Your task to perform on an android device: Open the calendar app, open the side menu, and click the "Day" option Image 0: 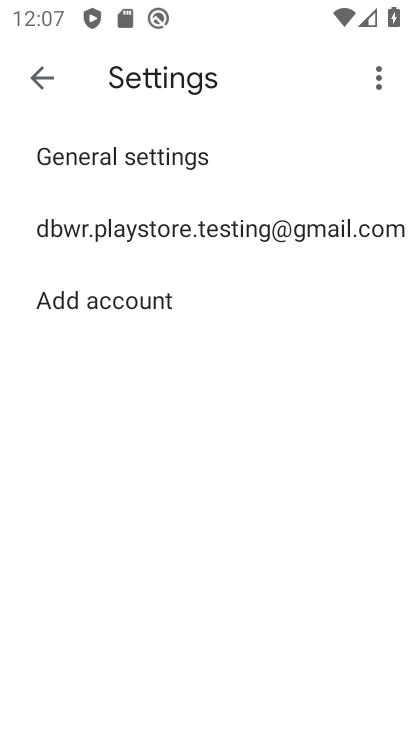
Step 0: press home button
Your task to perform on an android device: Open the calendar app, open the side menu, and click the "Day" option Image 1: 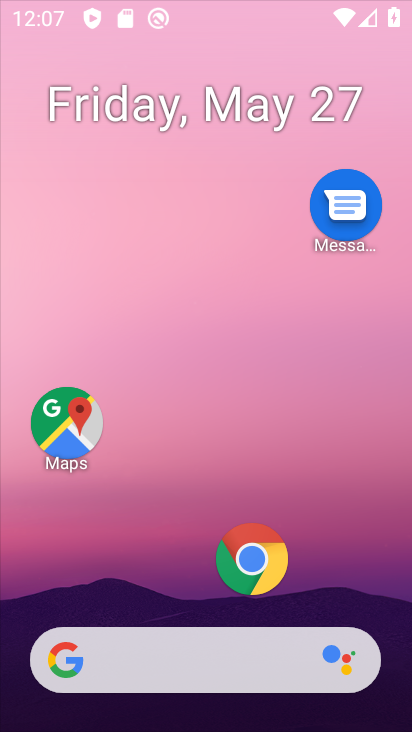
Step 1: drag from (178, 660) to (174, 119)
Your task to perform on an android device: Open the calendar app, open the side menu, and click the "Day" option Image 2: 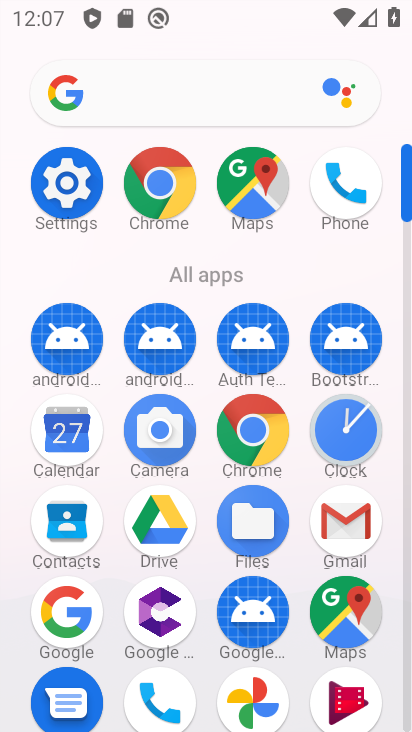
Step 2: click (73, 445)
Your task to perform on an android device: Open the calendar app, open the side menu, and click the "Day" option Image 3: 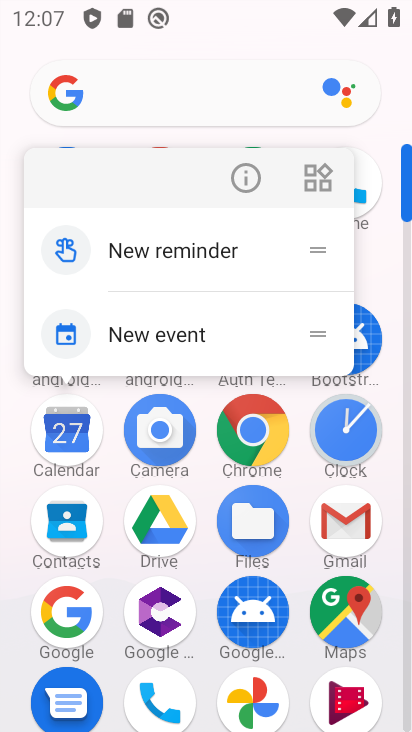
Step 3: click (59, 463)
Your task to perform on an android device: Open the calendar app, open the side menu, and click the "Day" option Image 4: 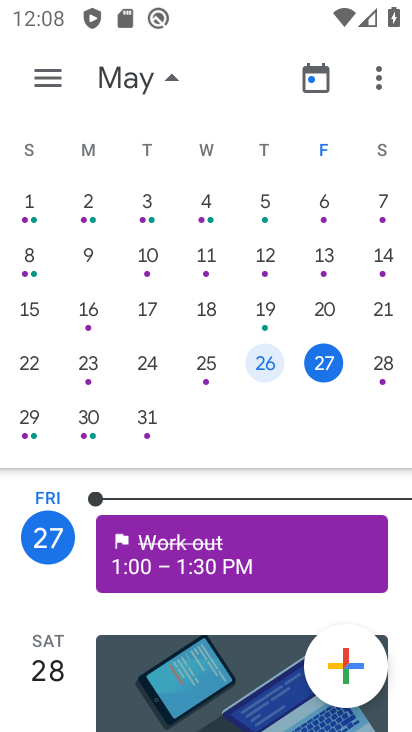
Step 4: click (43, 78)
Your task to perform on an android device: Open the calendar app, open the side menu, and click the "Day" option Image 5: 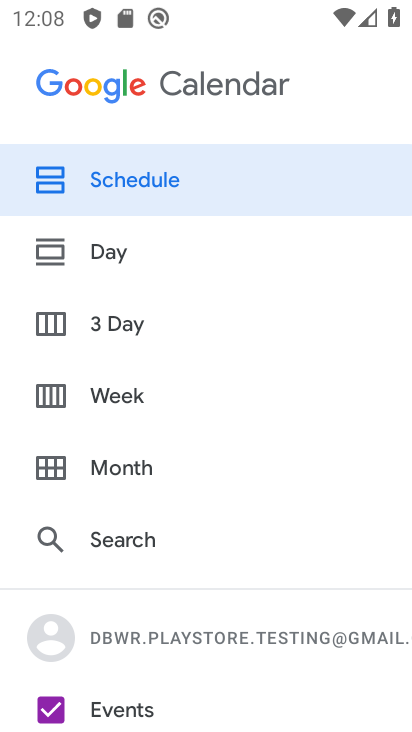
Step 5: click (145, 247)
Your task to perform on an android device: Open the calendar app, open the side menu, and click the "Day" option Image 6: 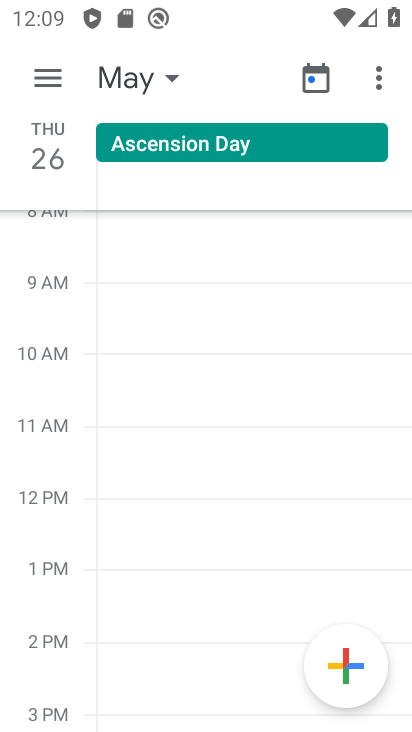
Step 6: task complete